Your task to perform on an android device: Go to internet settings Image 0: 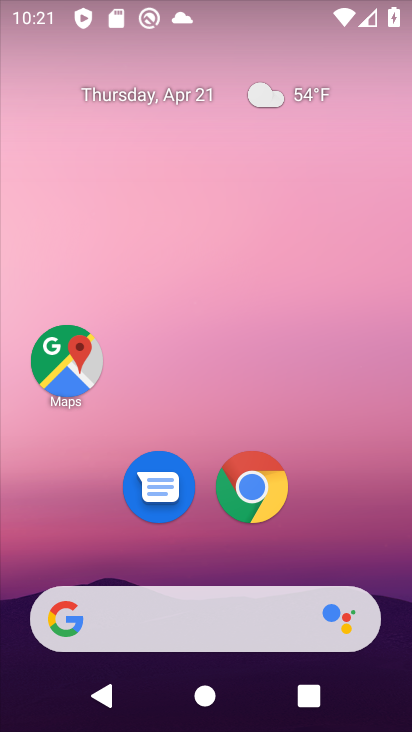
Step 0: drag from (371, 424) to (376, 161)
Your task to perform on an android device: Go to internet settings Image 1: 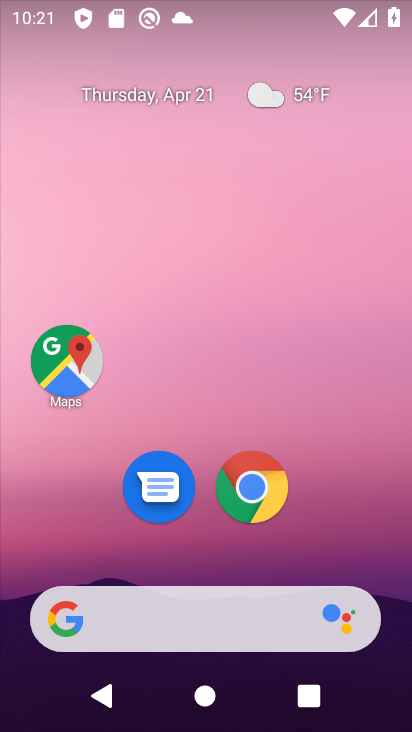
Step 1: drag from (323, 538) to (356, 205)
Your task to perform on an android device: Go to internet settings Image 2: 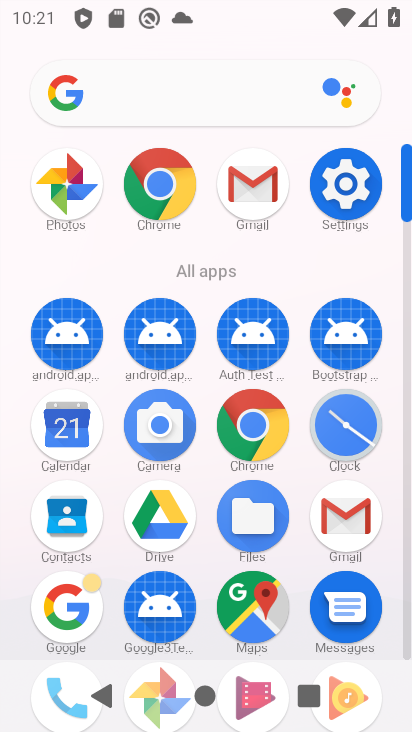
Step 2: click (351, 202)
Your task to perform on an android device: Go to internet settings Image 3: 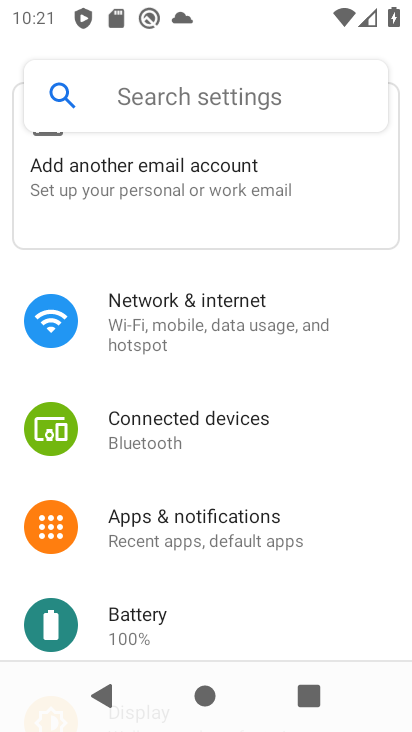
Step 3: click (217, 331)
Your task to perform on an android device: Go to internet settings Image 4: 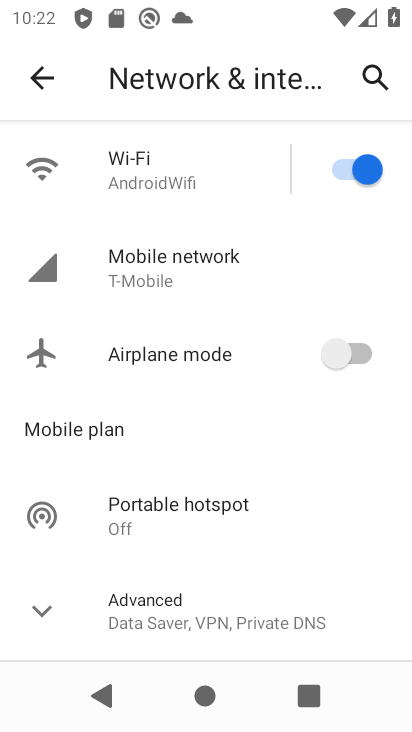
Step 4: click (227, 264)
Your task to perform on an android device: Go to internet settings Image 5: 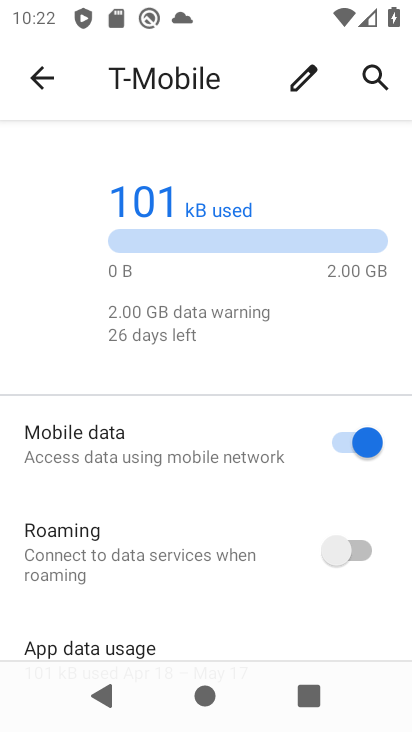
Step 5: task complete